Your task to perform on an android device: check storage Image 0: 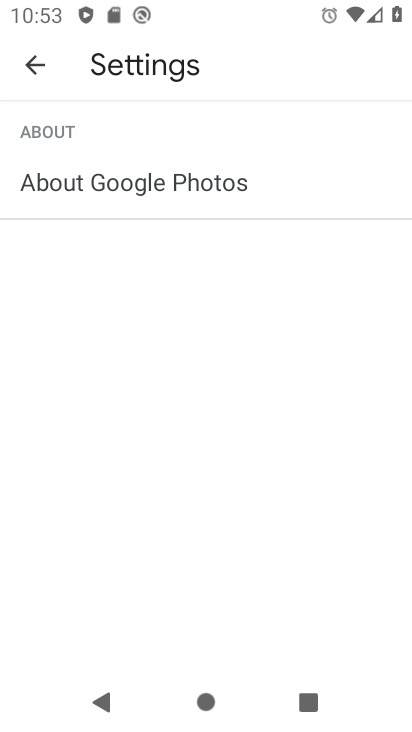
Step 0: press home button
Your task to perform on an android device: check storage Image 1: 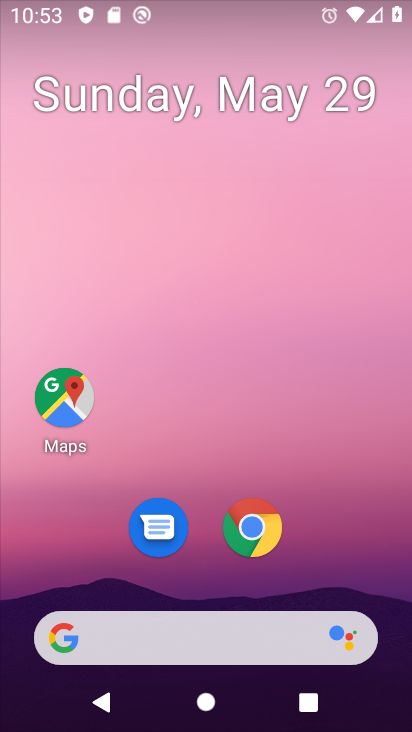
Step 1: drag from (194, 575) to (221, 32)
Your task to perform on an android device: check storage Image 2: 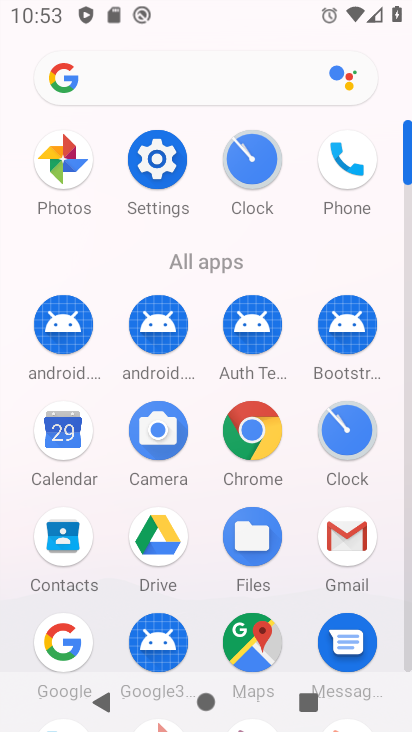
Step 2: click (137, 168)
Your task to perform on an android device: check storage Image 3: 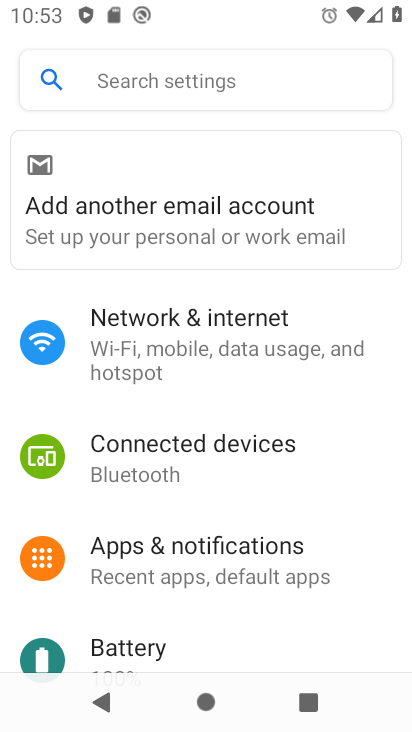
Step 3: drag from (175, 609) to (315, 23)
Your task to perform on an android device: check storage Image 4: 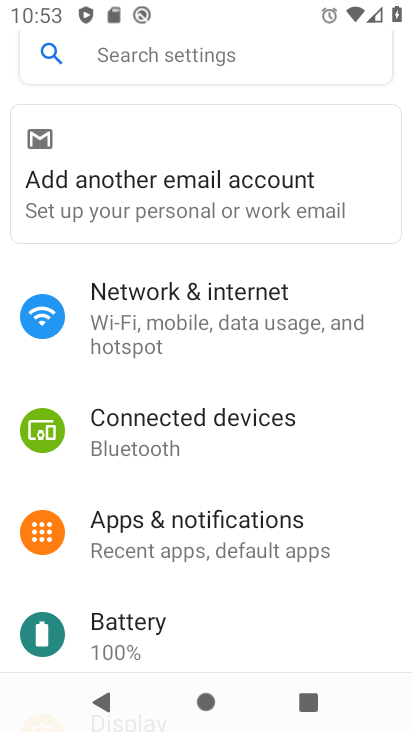
Step 4: drag from (193, 643) to (241, 0)
Your task to perform on an android device: check storage Image 5: 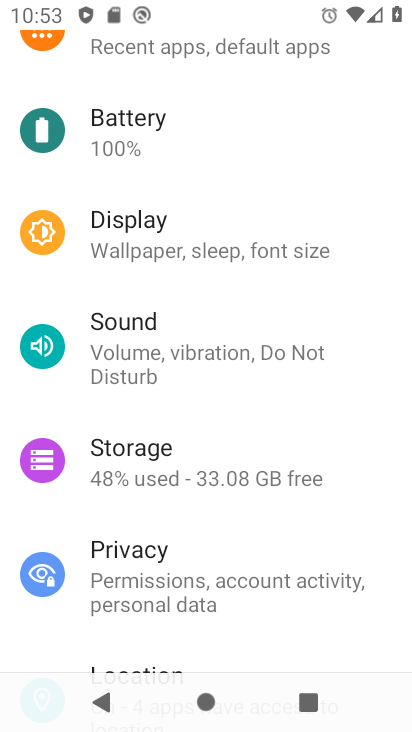
Step 5: click (159, 432)
Your task to perform on an android device: check storage Image 6: 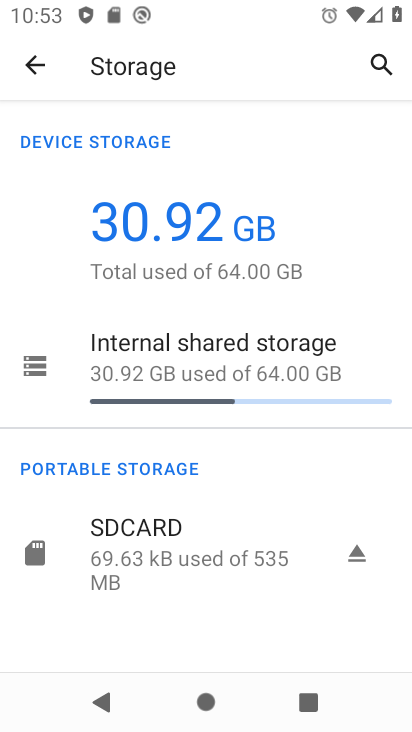
Step 6: task complete